Your task to perform on an android device: set default search engine in the chrome app Image 0: 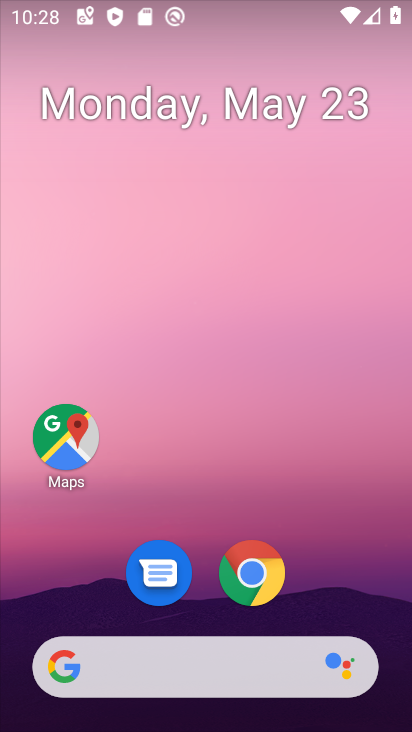
Step 0: drag from (240, 634) to (249, 263)
Your task to perform on an android device: set default search engine in the chrome app Image 1: 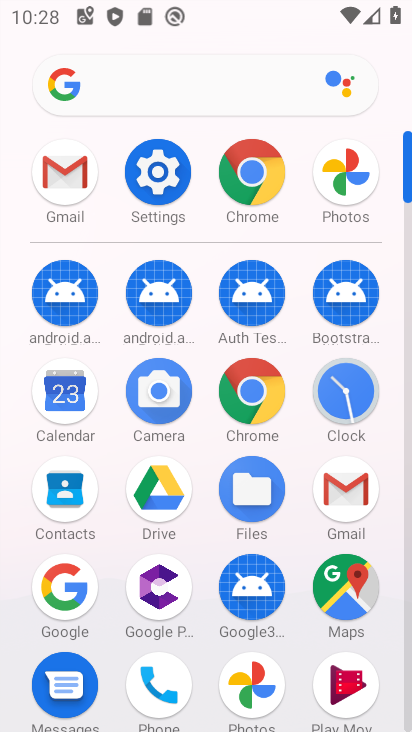
Step 1: click (270, 198)
Your task to perform on an android device: set default search engine in the chrome app Image 2: 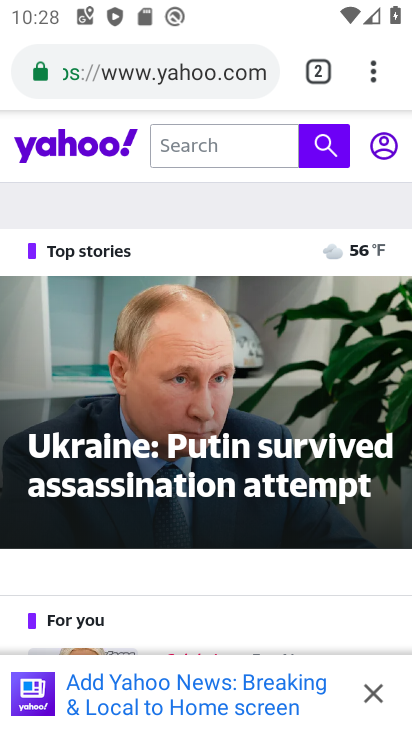
Step 2: click (371, 76)
Your task to perform on an android device: set default search engine in the chrome app Image 3: 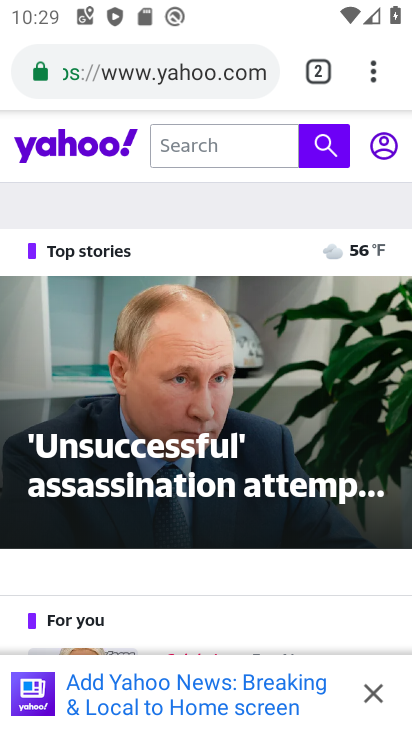
Step 3: click (372, 76)
Your task to perform on an android device: set default search engine in the chrome app Image 4: 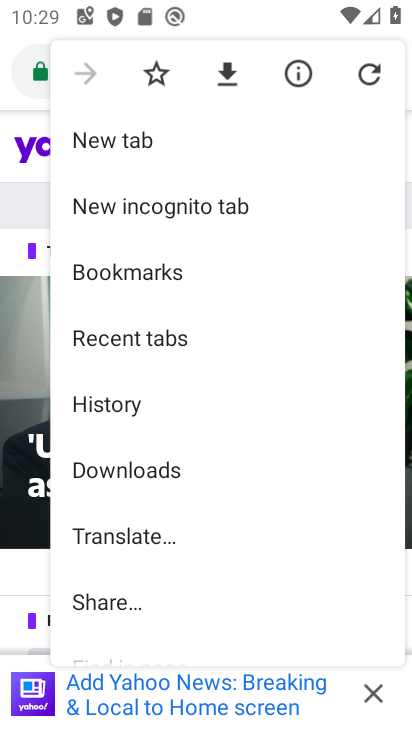
Step 4: drag from (182, 571) to (262, 4)
Your task to perform on an android device: set default search engine in the chrome app Image 5: 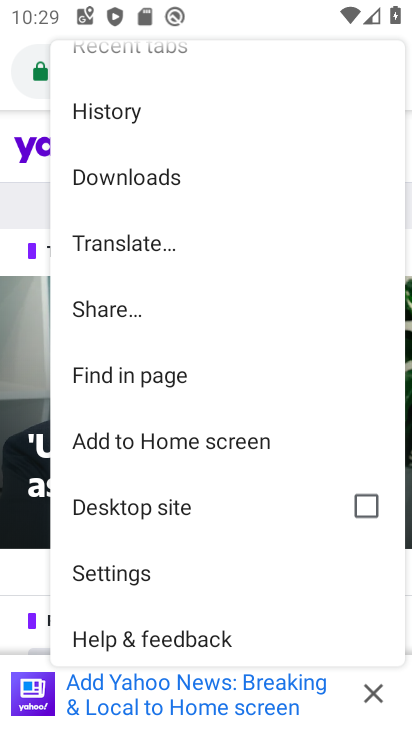
Step 5: click (165, 579)
Your task to perform on an android device: set default search engine in the chrome app Image 6: 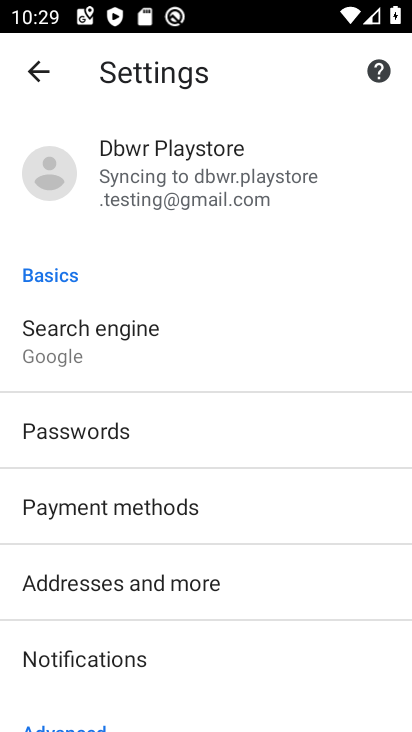
Step 6: drag from (148, 623) to (195, 354)
Your task to perform on an android device: set default search engine in the chrome app Image 7: 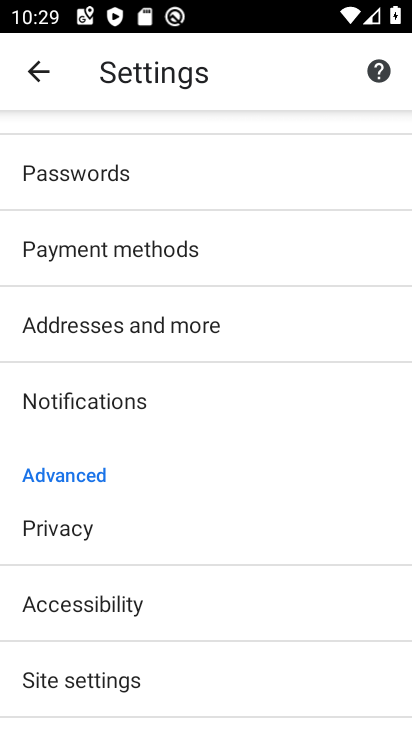
Step 7: drag from (177, 408) to (169, 730)
Your task to perform on an android device: set default search engine in the chrome app Image 8: 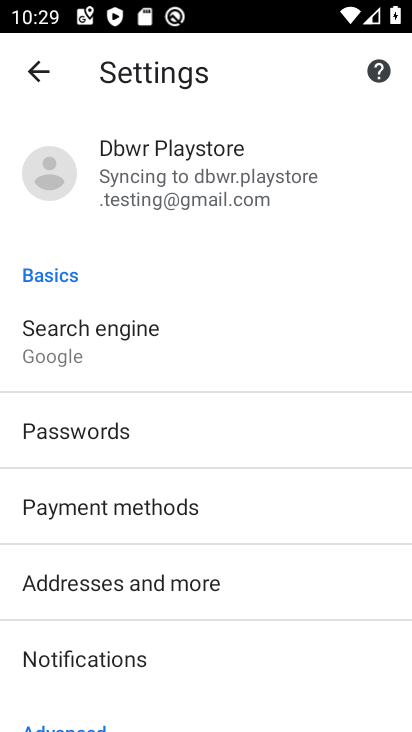
Step 8: click (147, 360)
Your task to perform on an android device: set default search engine in the chrome app Image 9: 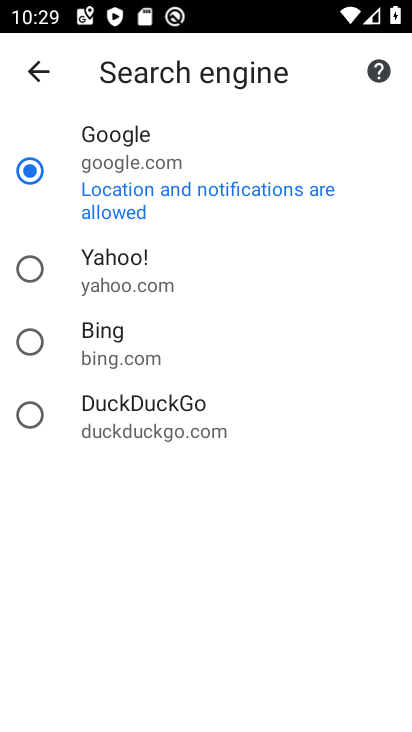
Step 9: task complete